Your task to perform on an android device: Do I have any events this weekend? Image 0: 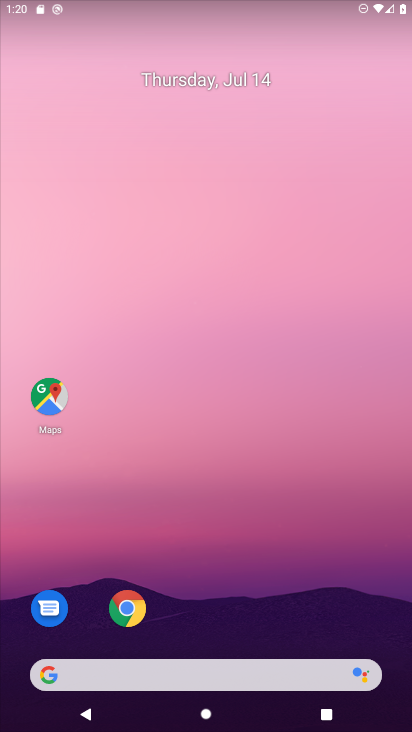
Step 0: drag from (239, 723) to (213, 304)
Your task to perform on an android device: Do I have any events this weekend? Image 1: 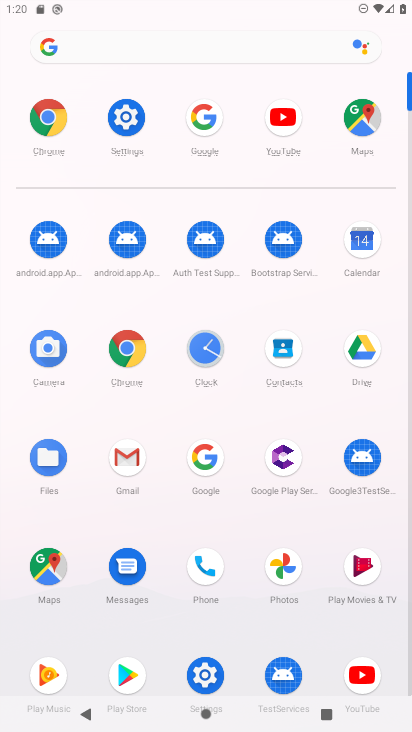
Step 1: click (363, 237)
Your task to perform on an android device: Do I have any events this weekend? Image 2: 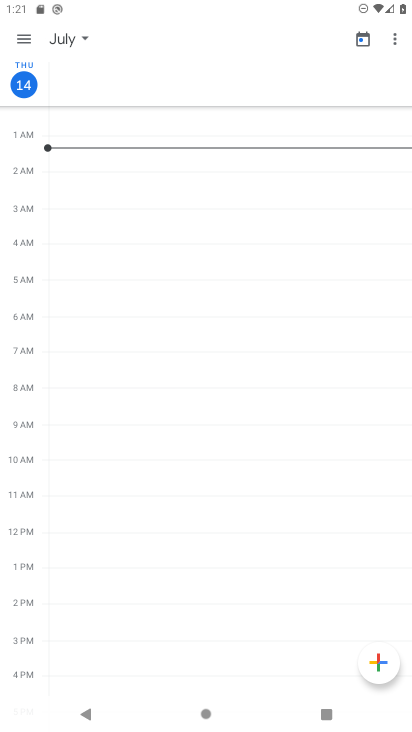
Step 2: click (87, 32)
Your task to perform on an android device: Do I have any events this weekend? Image 3: 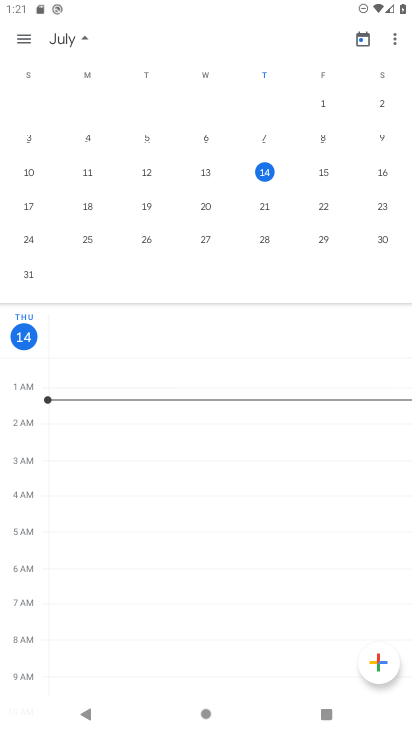
Step 3: click (385, 169)
Your task to perform on an android device: Do I have any events this weekend? Image 4: 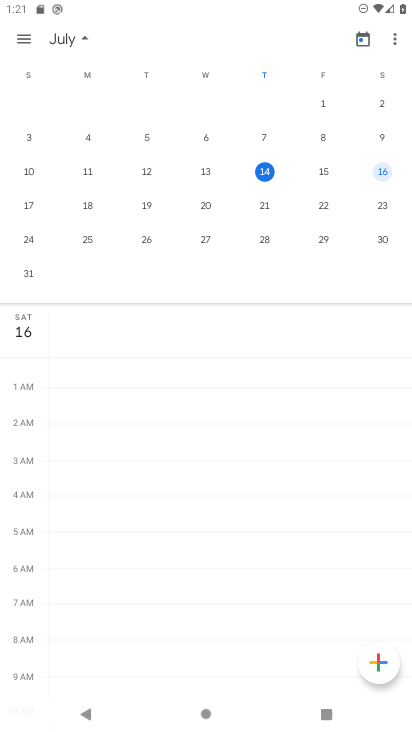
Step 4: click (385, 169)
Your task to perform on an android device: Do I have any events this weekend? Image 5: 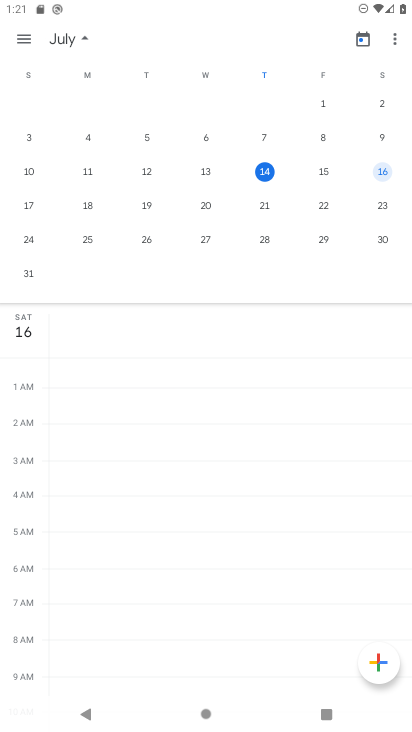
Step 5: click (384, 171)
Your task to perform on an android device: Do I have any events this weekend? Image 6: 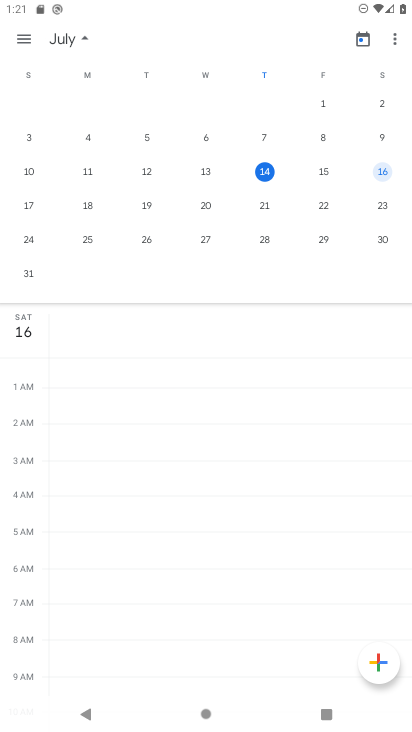
Step 6: click (20, 320)
Your task to perform on an android device: Do I have any events this weekend? Image 7: 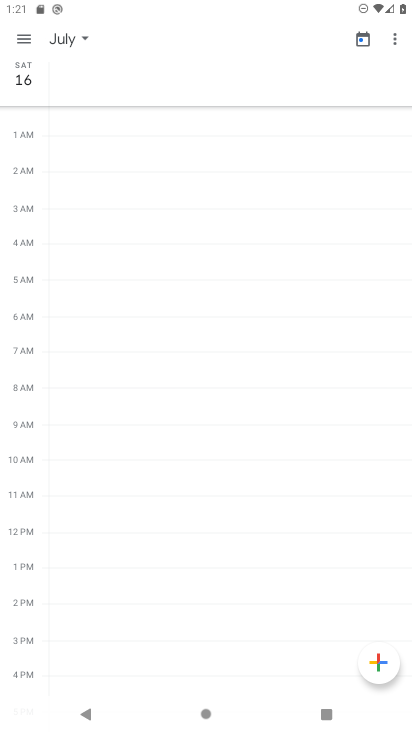
Step 7: task complete